Your task to perform on an android device: refresh tabs in the chrome app Image 0: 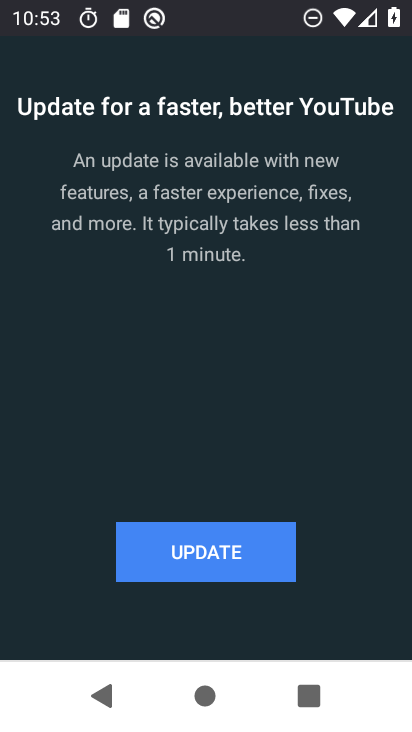
Step 0: press home button
Your task to perform on an android device: refresh tabs in the chrome app Image 1: 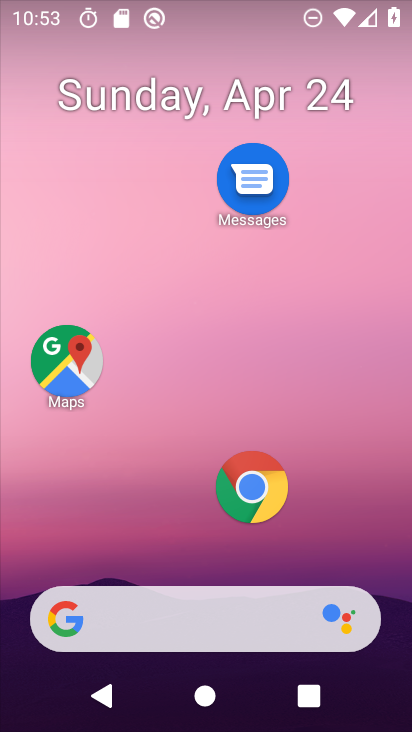
Step 1: drag from (169, 453) to (210, 41)
Your task to perform on an android device: refresh tabs in the chrome app Image 2: 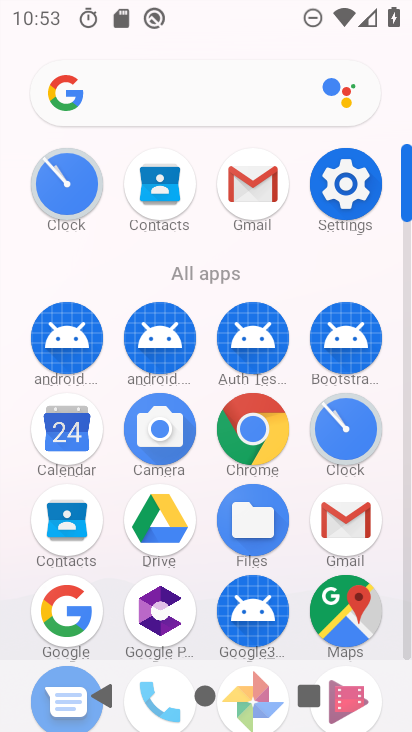
Step 2: click (247, 427)
Your task to perform on an android device: refresh tabs in the chrome app Image 3: 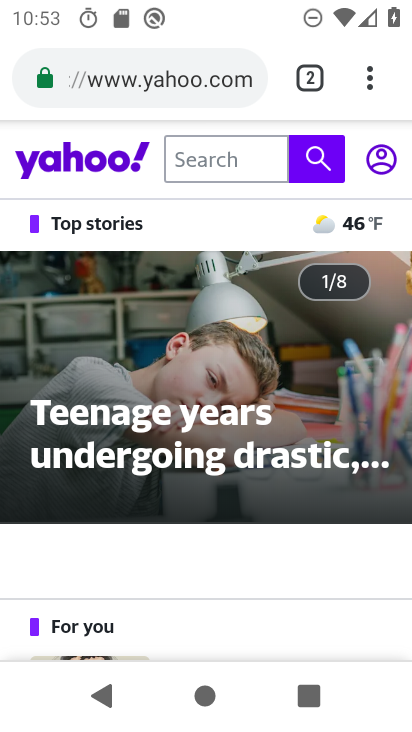
Step 3: click (368, 85)
Your task to perform on an android device: refresh tabs in the chrome app Image 4: 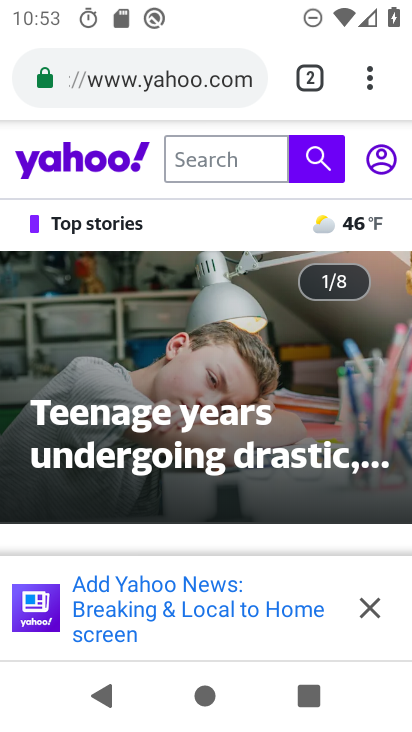
Step 4: task complete